Your task to perform on an android device: Open Wikipedia Image 0: 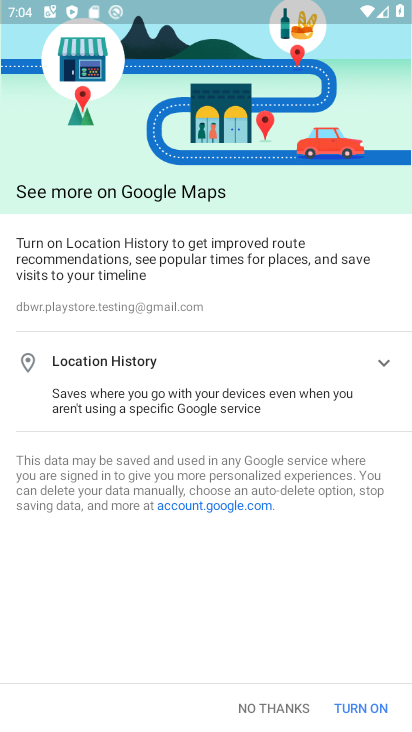
Step 0: press home button
Your task to perform on an android device: Open Wikipedia Image 1: 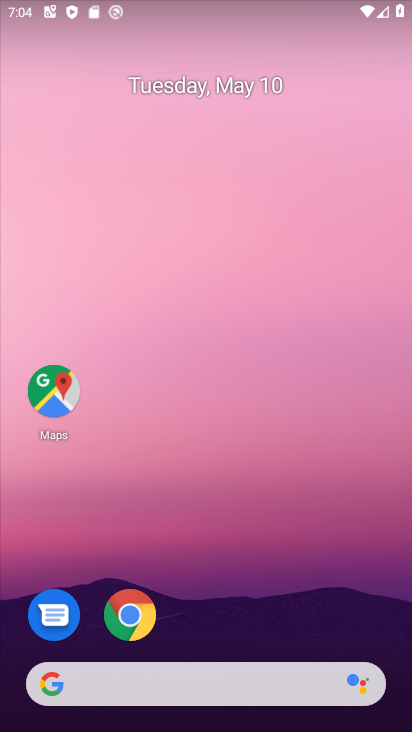
Step 1: click (125, 619)
Your task to perform on an android device: Open Wikipedia Image 2: 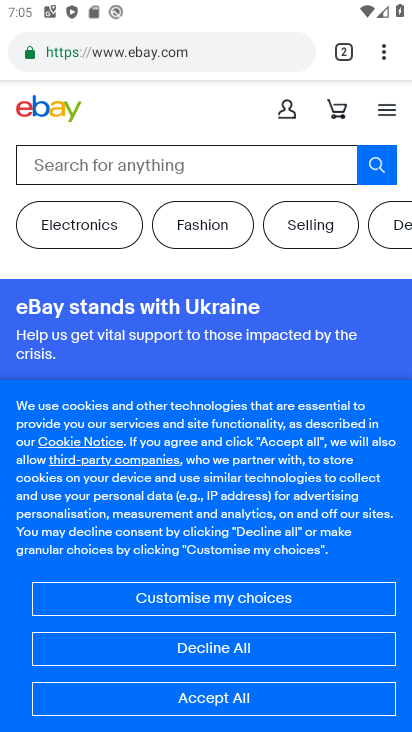
Step 2: click (381, 54)
Your task to perform on an android device: Open Wikipedia Image 3: 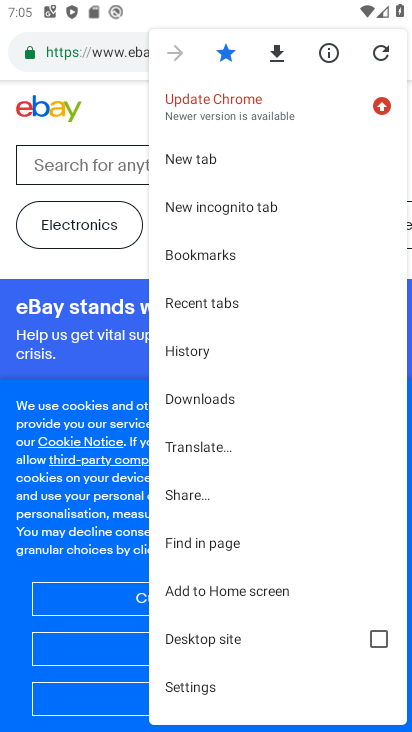
Step 3: click (198, 152)
Your task to perform on an android device: Open Wikipedia Image 4: 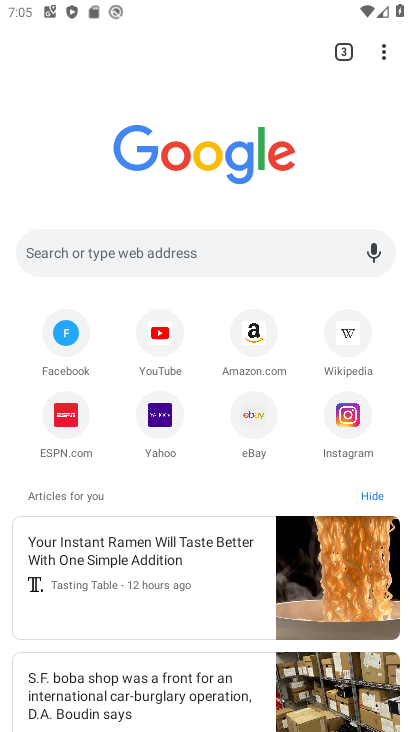
Step 4: click (349, 331)
Your task to perform on an android device: Open Wikipedia Image 5: 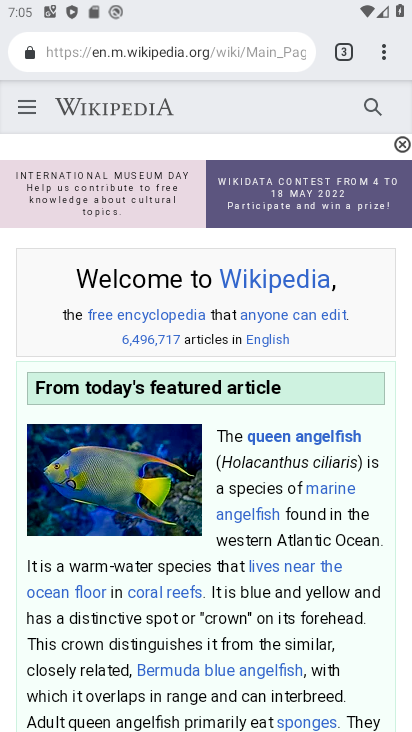
Step 5: task complete